Your task to perform on an android device: Go to privacy settings Image 0: 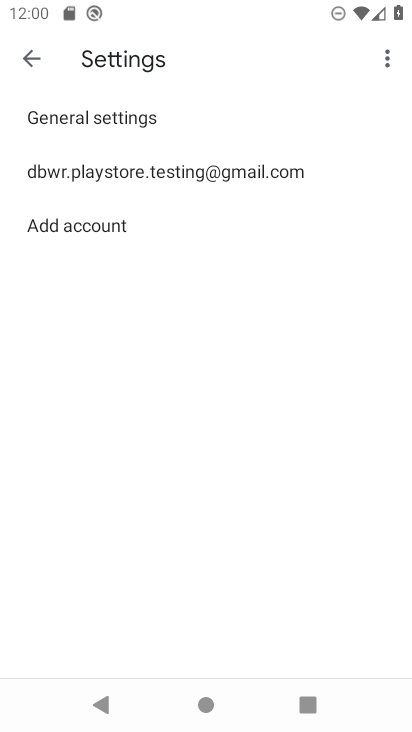
Step 0: press home button
Your task to perform on an android device: Go to privacy settings Image 1: 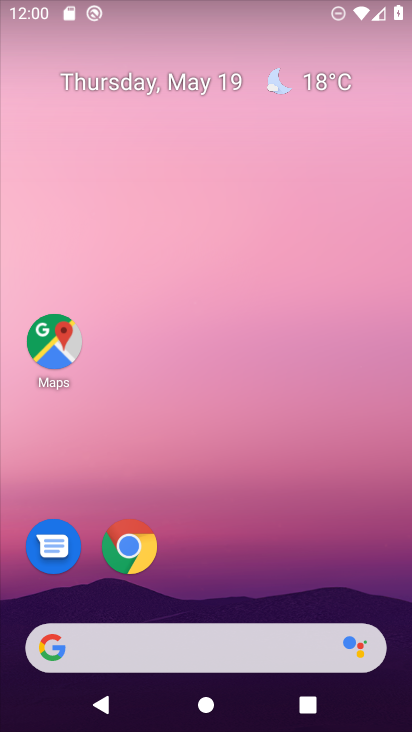
Step 1: drag from (228, 726) to (239, 126)
Your task to perform on an android device: Go to privacy settings Image 2: 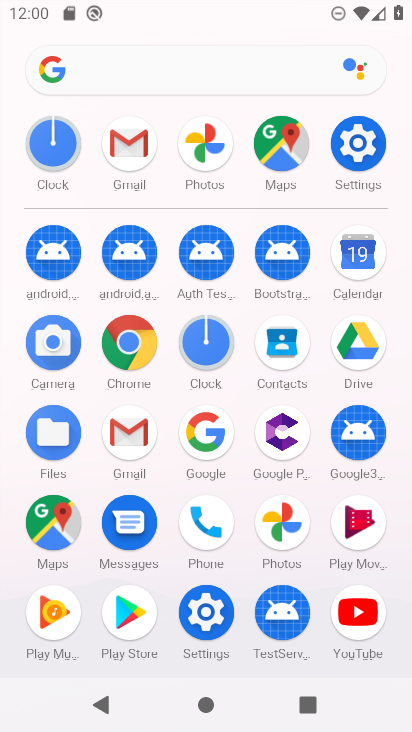
Step 2: click (358, 146)
Your task to perform on an android device: Go to privacy settings Image 3: 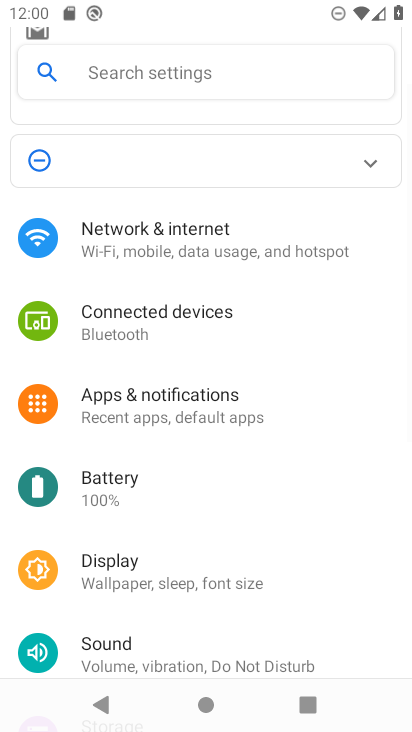
Step 3: drag from (197, 611) to (201, 280)
Your task to perform on an android device: Go to privacy settings Image 4: 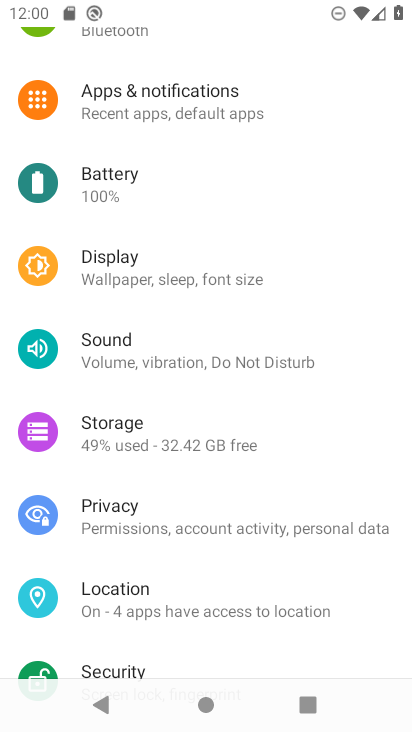
Step 4: click (125, 522)
Your task to perform on an android device: Go to privacy settings Image 5: 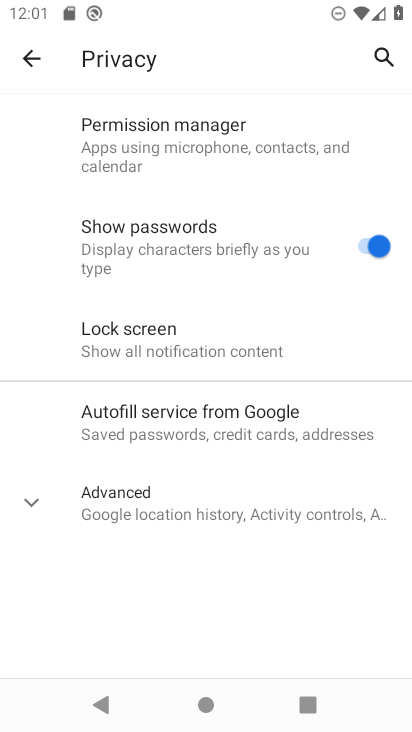
Step 5: task complete